Your task to perform on an android device: What's on my calendar today? Image 0: 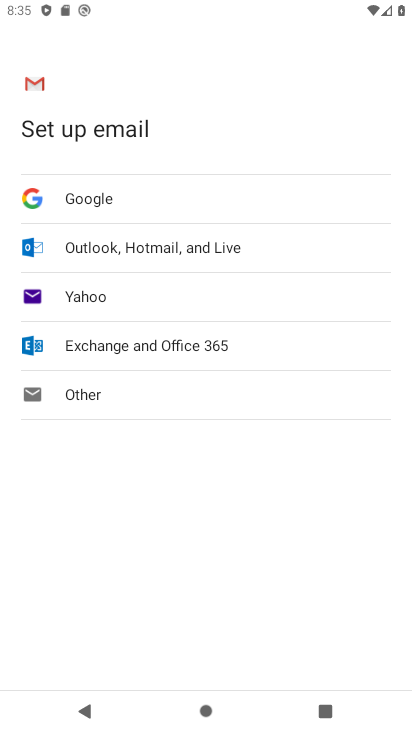
Step 0: press home button
Your task to perform on an android device: What's on my calendar today? Image 1: 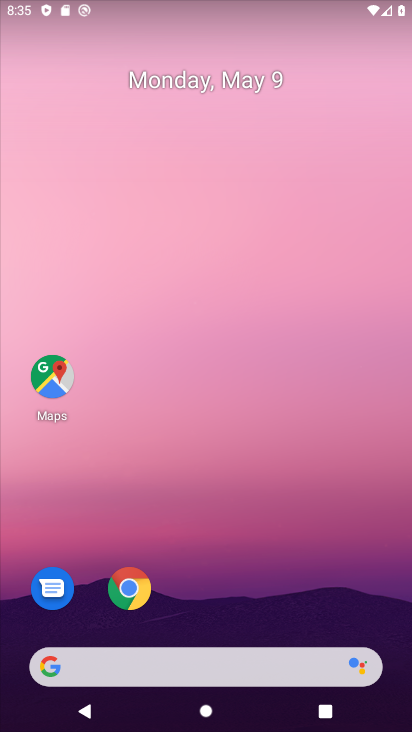
Step 1: drag from (185, 429) to (233, 103)
Your task to perform on an android device: What's on my calendar today? Image 2: 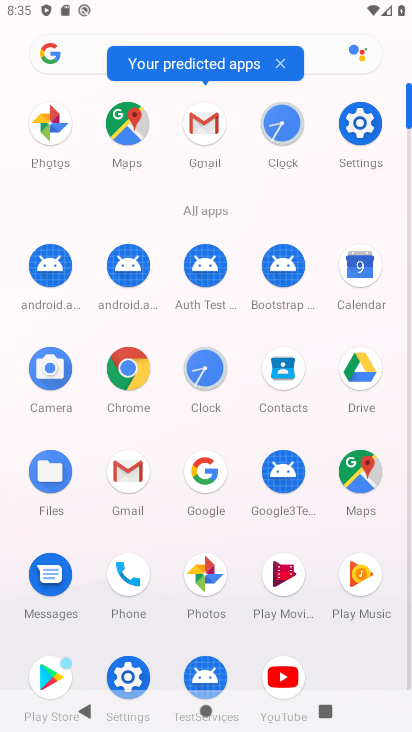
Step 2: click (357, 263)
Your task to perform on an android device: What's on my calendar today? Image 3: 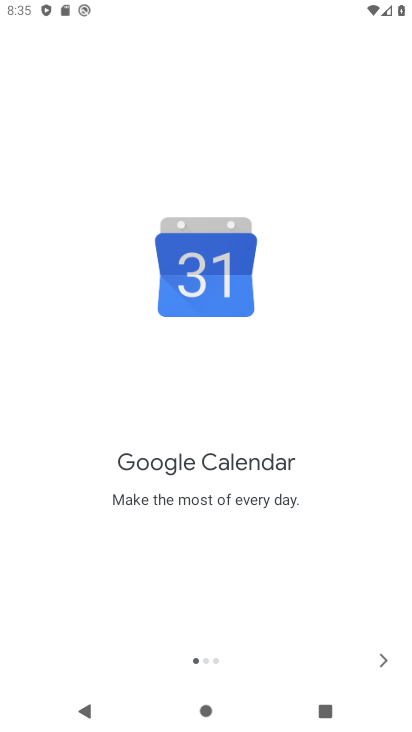
Step 3: click (384, 660)
Your task to perform on an android device: What's on my calendar today? Image 4: 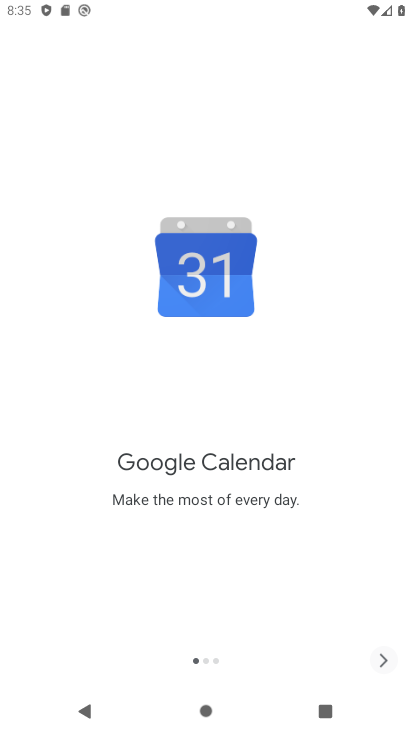
Step 4: click (384, 660)
Your task to perform on an android device: What's on my calendar today? Image 5: 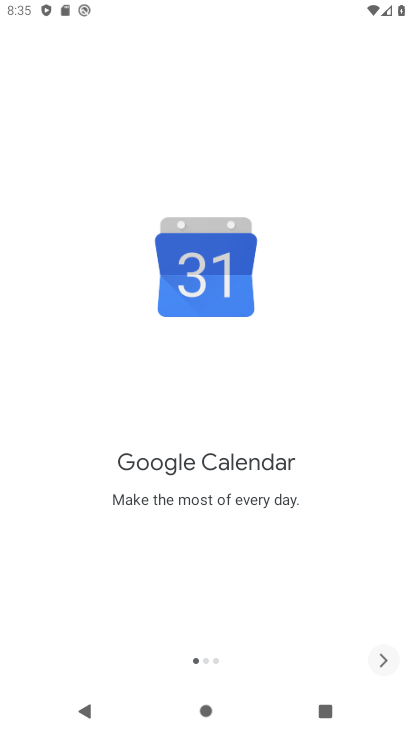
Step 5: click (384, 660)
Your task to perform on an android device: What's on my calendar today? Image 6: 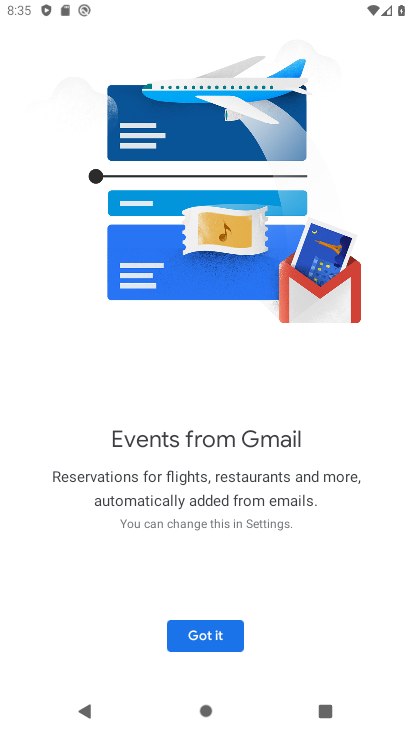
Step 6: click (221, 634)
Your task to perform on an android device: What's on my calendar today? Image 7: 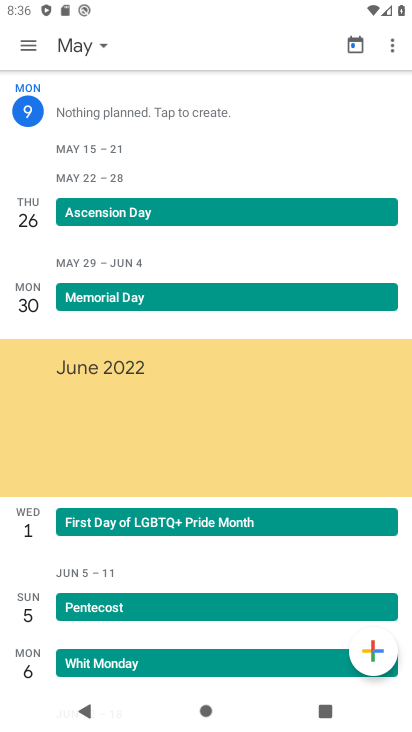
Step 7: click (30, 41)
Your task to perform on an android device: What's on my calendar today? Image 8: 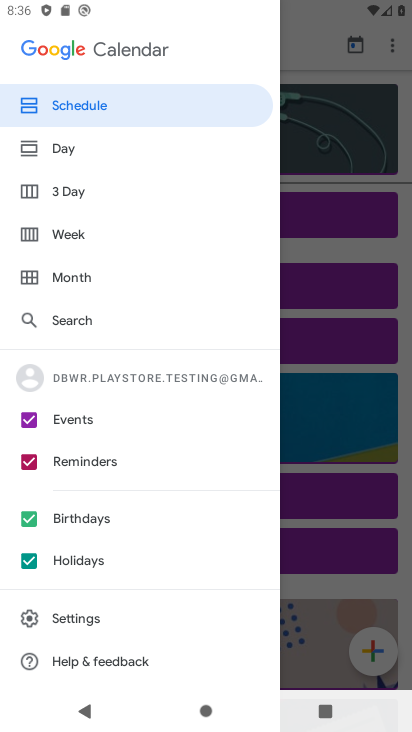
Step 8: click (299, 121)
Your task to perform on an android device: What's on my calendar today? Image 9: 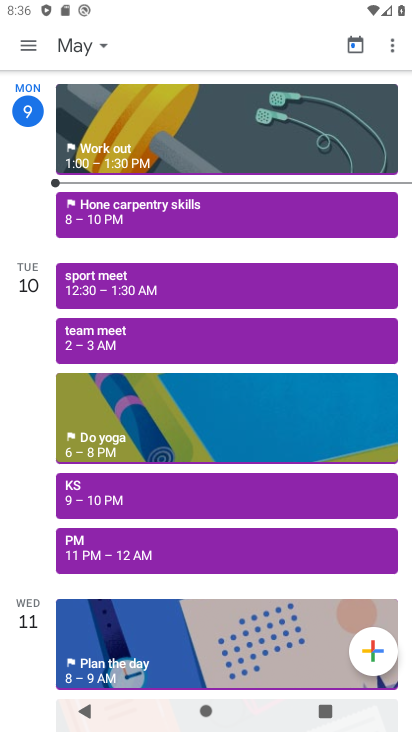
Step 9: click (155, 138)
Your task to perform on an android device: What's on my calendar today? Image 10: 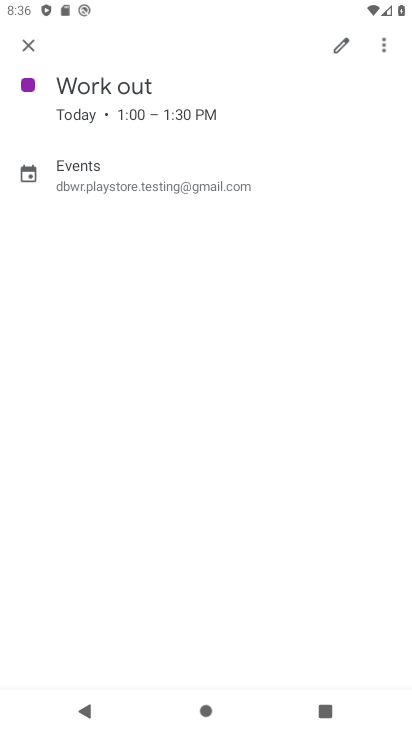
Step 10: click (31, 52)
Your task to perform on an android device: What's on my calendar today? Image 11: 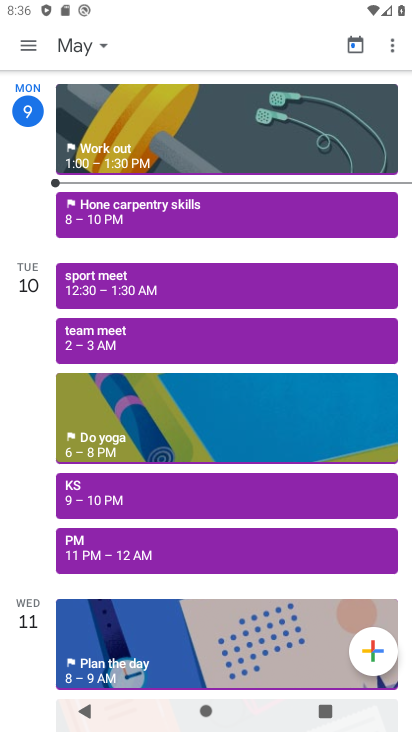
Step 11: click (136, 220)
Your task to perform on an android device: What's on my calendar today? Image 12: 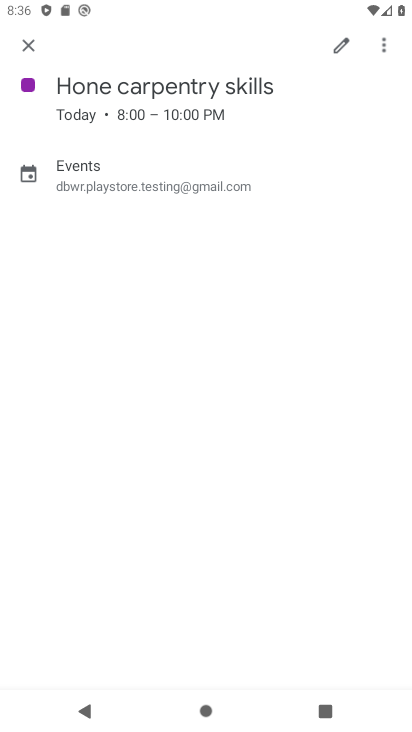
Step 12: task complete